Your task to perform on an android device: Is it going to rain this weekend? Image 0: 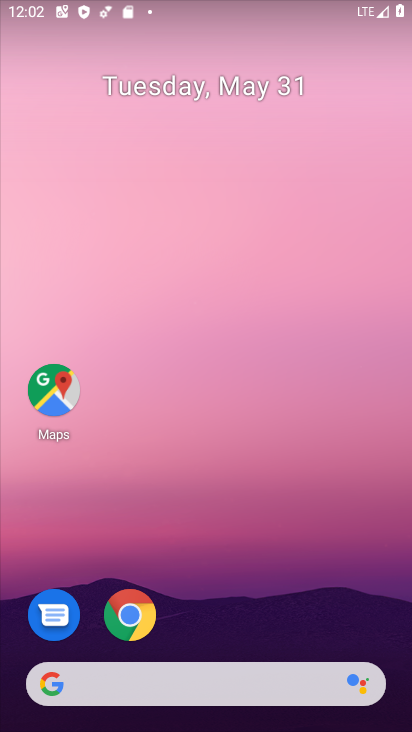
Step 0: click (209, 695)
Your task to perform on an android device: Is it going to rain this weekend? Image 1: 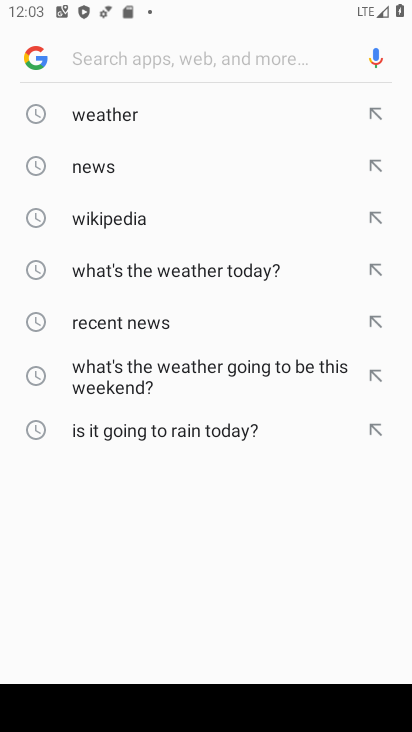
Step 1: click (161, 114)
Your task to perform on an android device: Is it going to rain this weekend? Image 2: 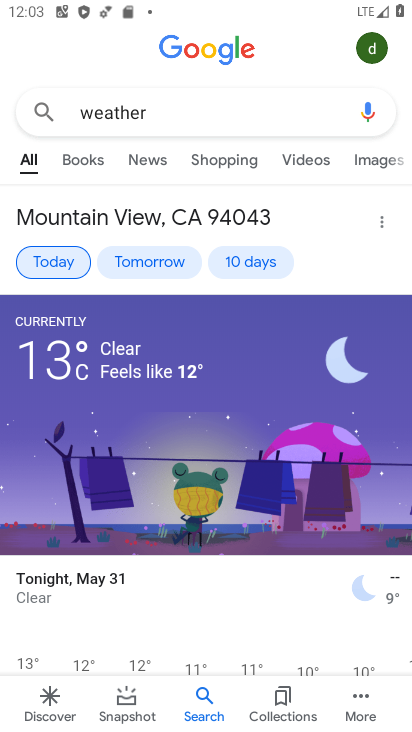
Step 2: click (236, 265)
Your task to perform on an android device: Is it going to rain this weekend? Image 3: 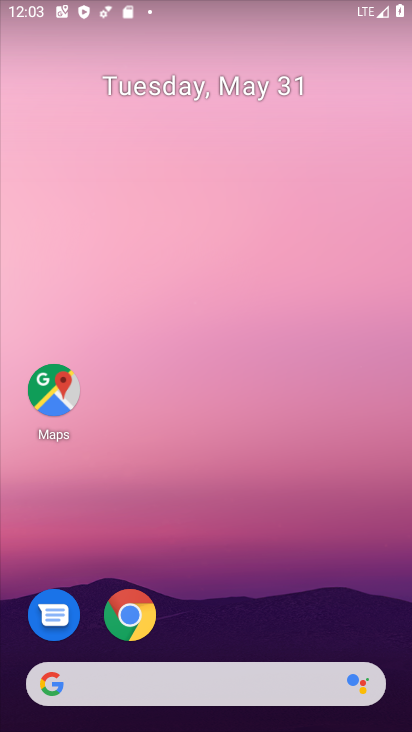
Step 3: click (207, 686)
Your task to perform on an android device: Is it going to rain this weekend? Image 4: 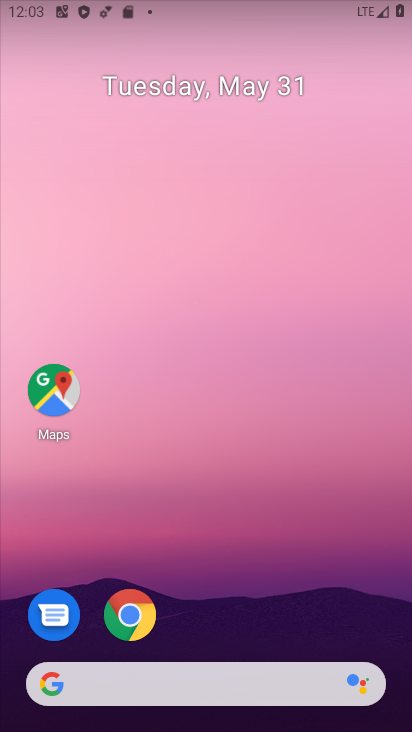
Step 4: click (208, 684)
Your task to perform on an android device: Is it going to rain this weekend? Image 5: 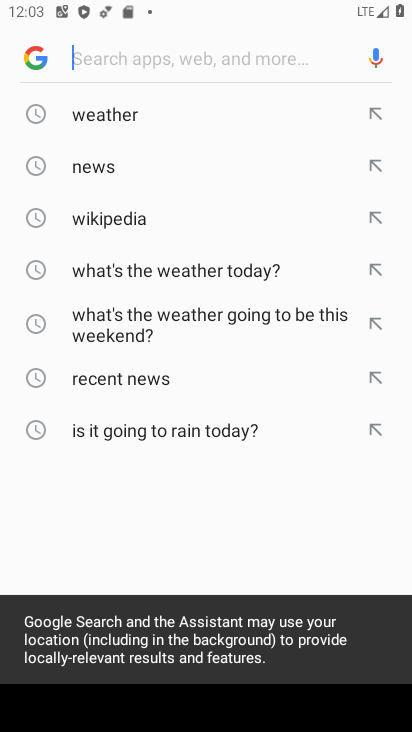
Step 5: click (102, 110)
Your task to perform on an android device: Is it going to rain this weekend? Image 6: 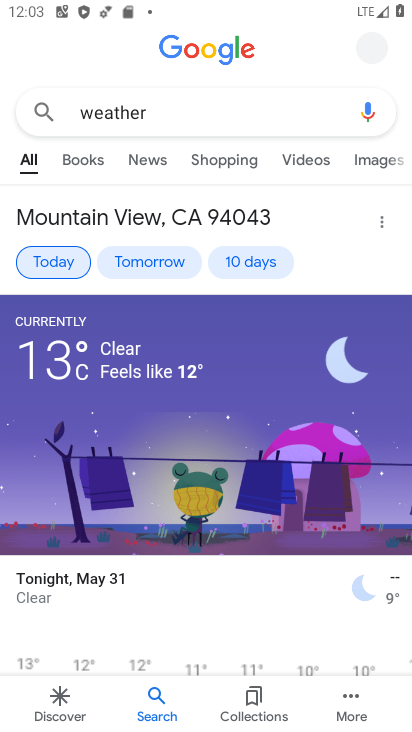
Step 6: click (244, 264)
Your task to perform on an android device: Is it going to rain this weekend? Image 7: 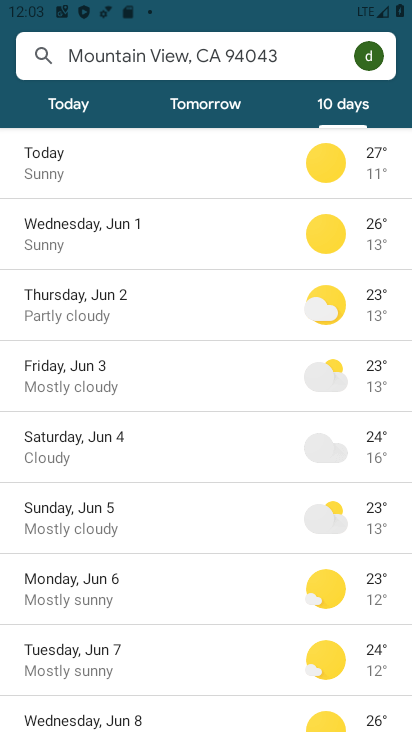
Step 7: task complete